Your task to perform on an android device: Find coffee shops on Maps Image 0: 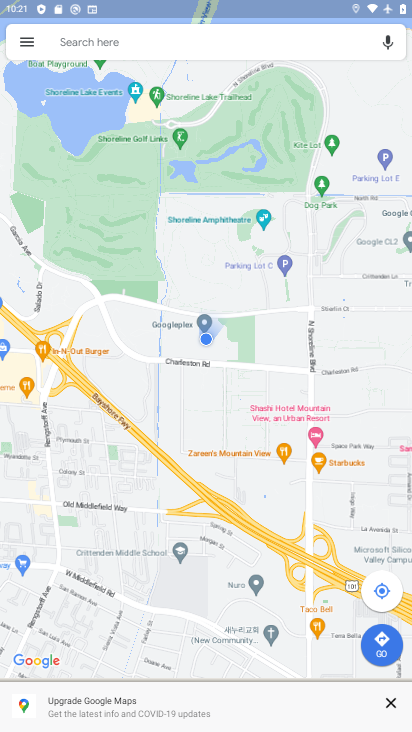
Step 0: press home button
Your task to perform on an android device: Find coffee shops on Maps Image 1: 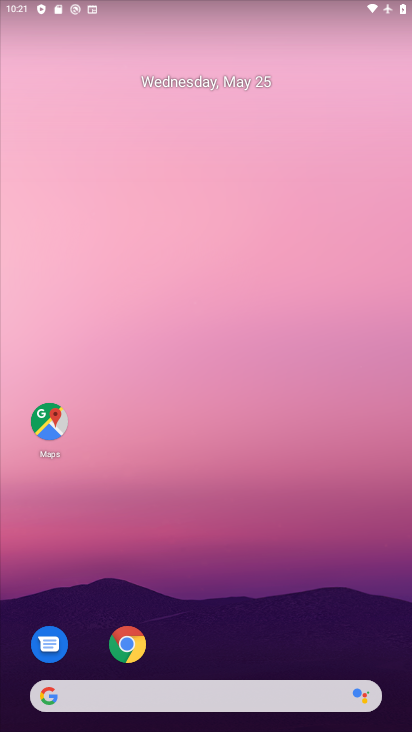
Step 1: click (59, 419)
Your task to perform on an android device: Find coffee shops on Maps Image 2: 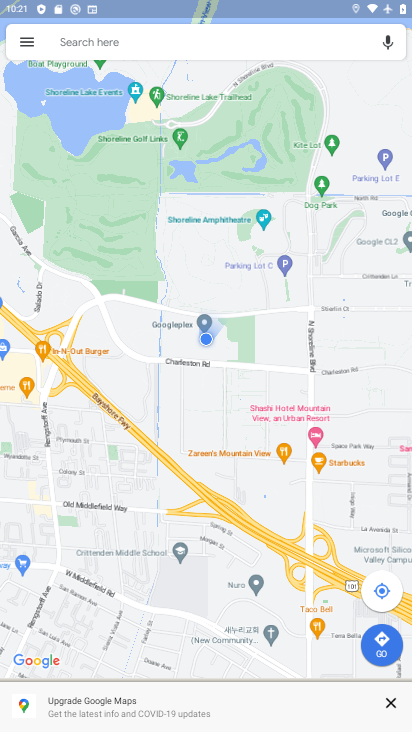
Step 2: click (205, 41)
Your task to perform on an android device: Find coffee shops on Maps Image 3: 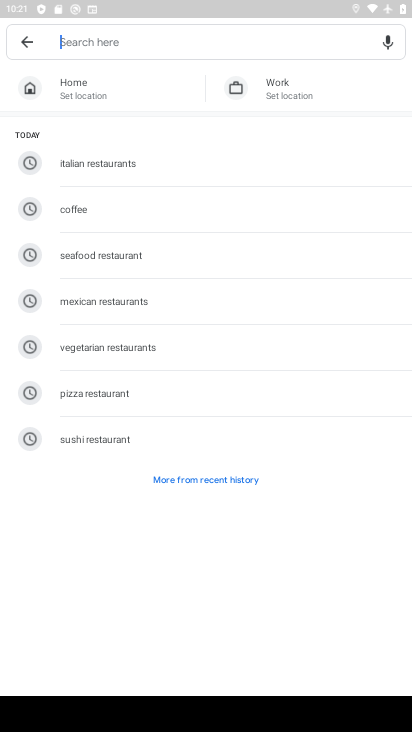
Step 3: click (113, 213)
Your task to perform on an android device: Find coffee shops on Maps Image 4: 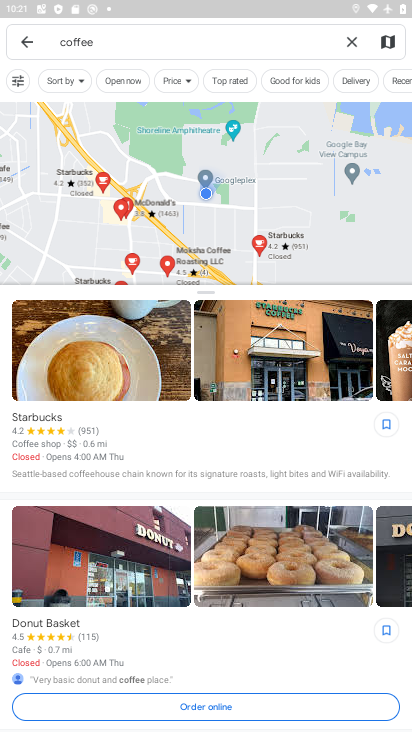
Step 4: task complete